Your task to perform on an android device: turn on notifications settings in the gmail app Image 0: 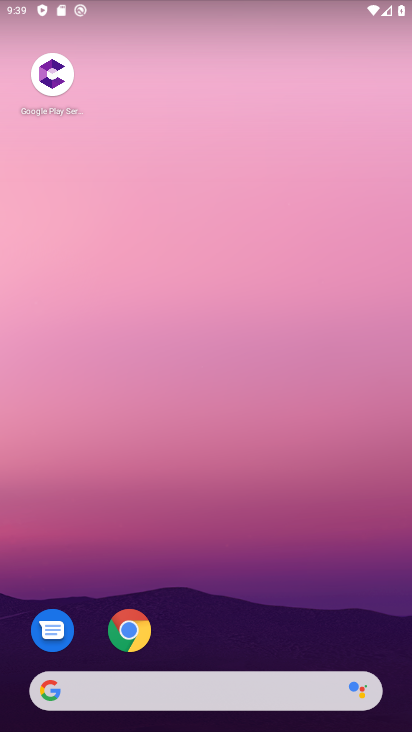
Step 0: drag from (231, 636) to (276, 106)
Your task to perform on an android device: turn on notifications settings in the gmail app Image 1: 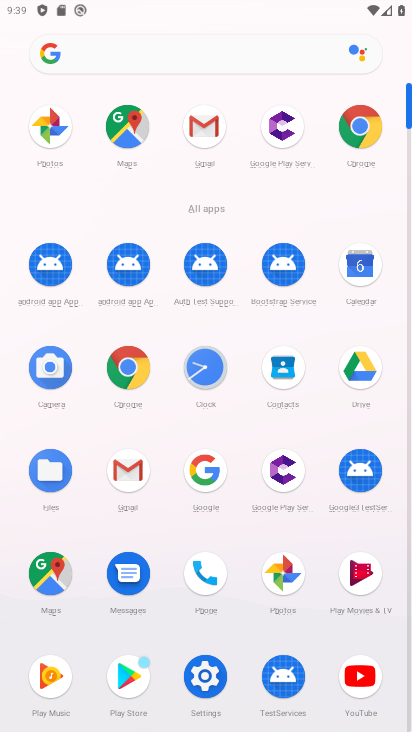
Step 1: click (123, 479)
Your task to perform on an android device: turn on notifications settings in the gmail app Image 2: 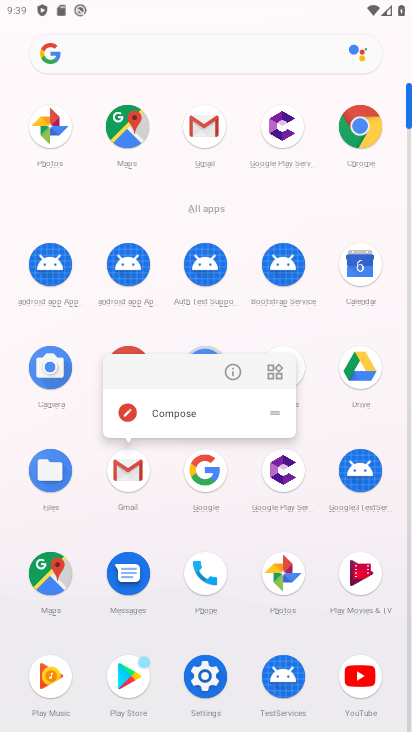
Step 2: click (231, 374)
Your task to perform on an android device: turn on notifications settings in the gmail app Image 3: 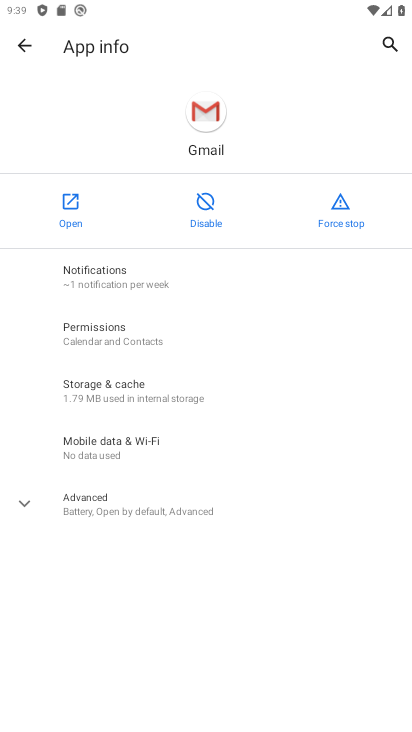
Step 3: click (156, 264)
Your task to perform on an android device: turn on notifications settings in the gmail app Image 4: 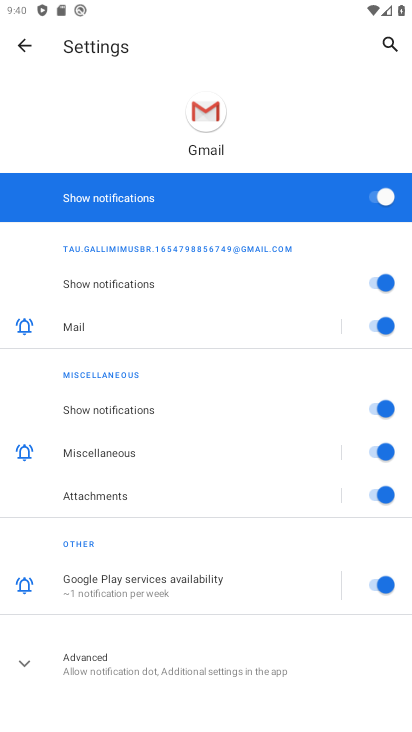
Step 4: task complete